Your task to perform on an android device: add a label to a message in the gmail app Image 0: 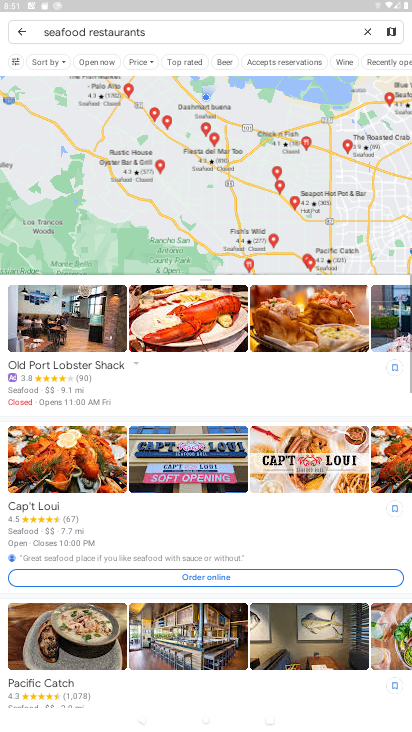
Step 0: press home button
Your task to perform on an android device: add a label to a message in the gmail app Image 1: 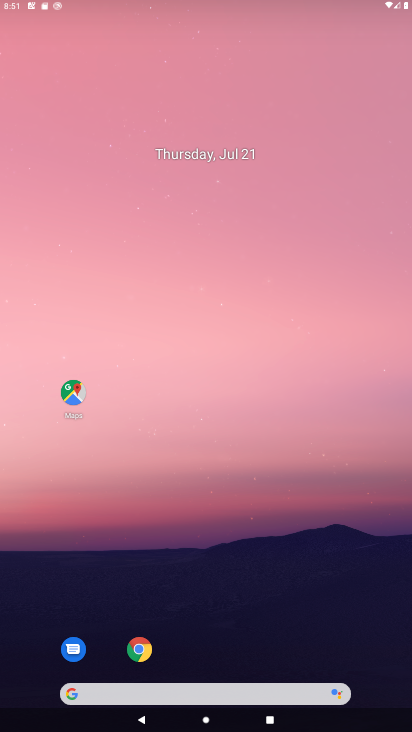
Step 1: drag from (203, 625) to (220, 51)
Your task to perform on an android device: add a label to a message in the gmail app Image 2: 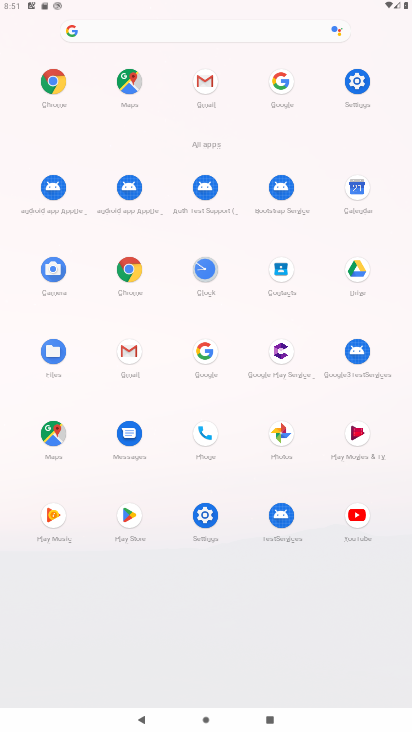
Step 2: click (208, 83)
Your task to perform on an android device: add a label to a message in the gmail app Image 3: 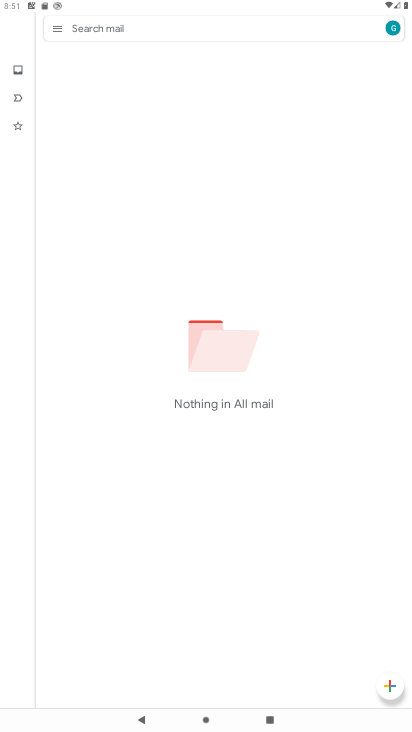
Step 3: task complete